Your task to perform on an android device: Open Amazon Image 0: 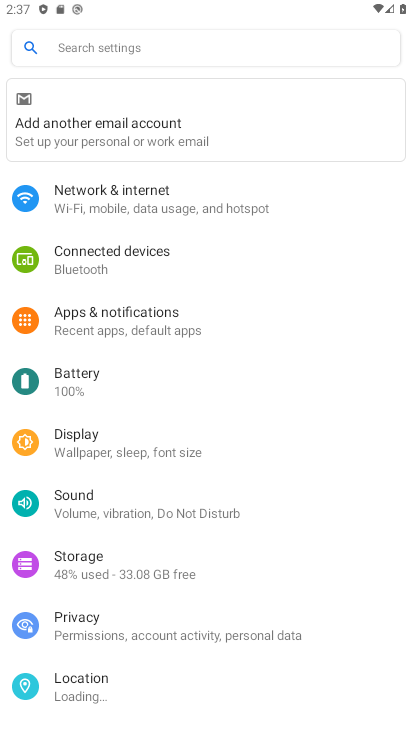
Step 0: press home button
Your task to perform on an android device: Open Amazon Image 1: 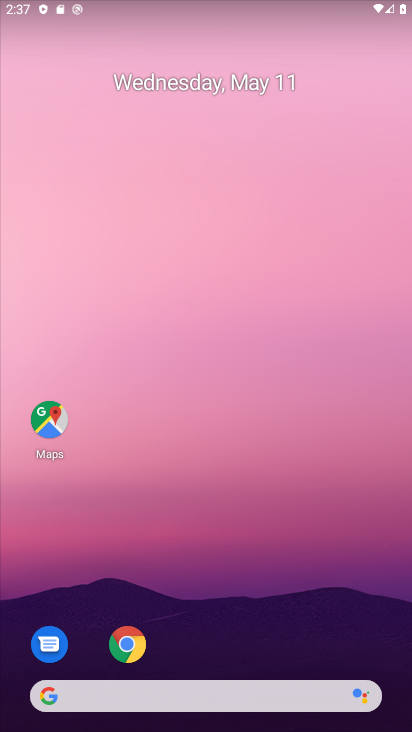
Step 1: drag from (185, 668) to (79, 1)
Your task to perform on an android device: Open Amazon Image 2: 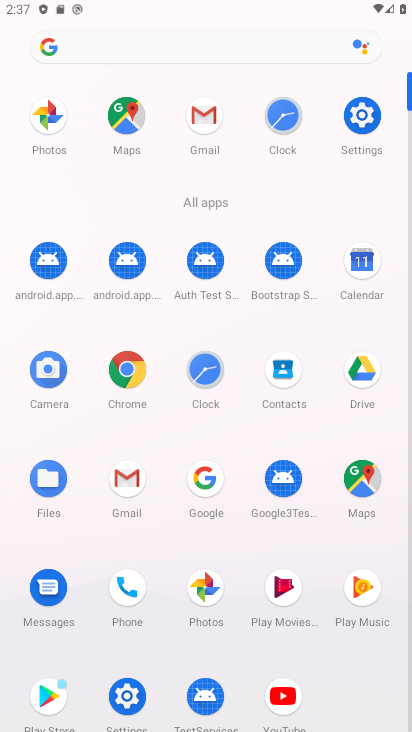
Step 2: click (132, 381)
Your task to perform on an android device: Open Amazon Image 3: 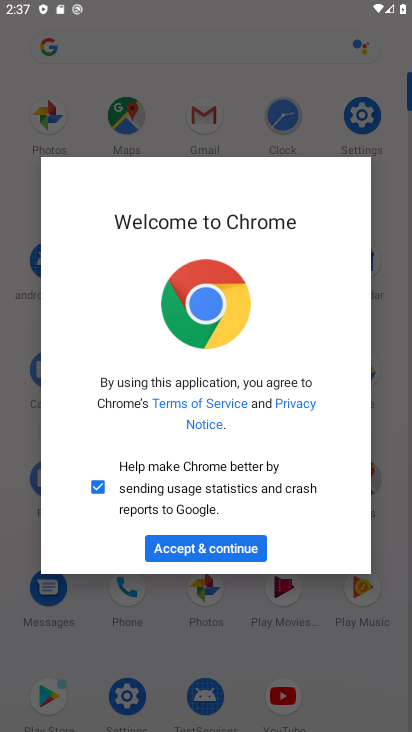
Step 3: click (240, 539)
Your task to perform on an android device: Open Amazon Image 4: 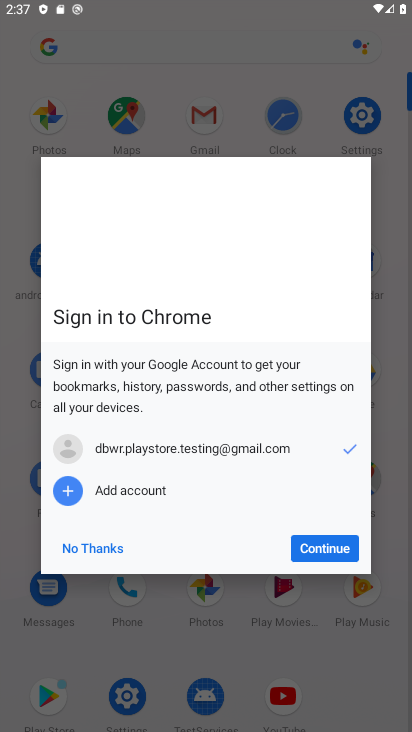
Step 4: click (322, 543)
Your task to perform on an android device: Open Amazon Image 5: 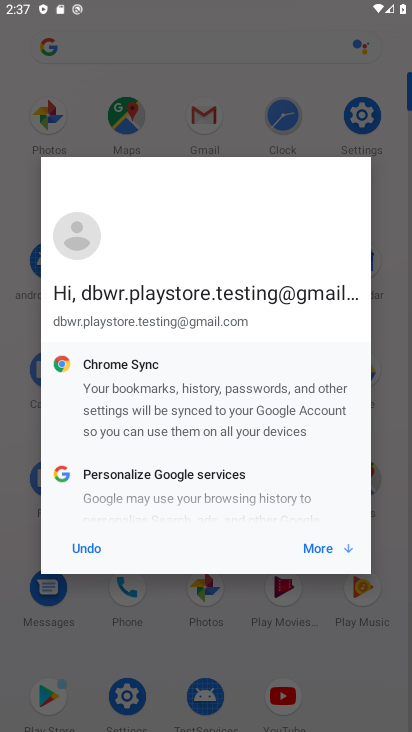
Step 5: click (336, 545)
Your task to perform on an android device: Open Amazon Image 6: 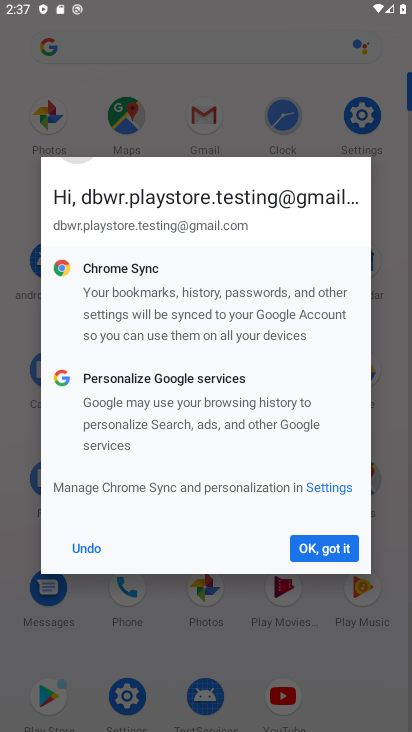
Step 6: click (336, 545)
Your task to perform on an android device: Open Amazon Image 7: 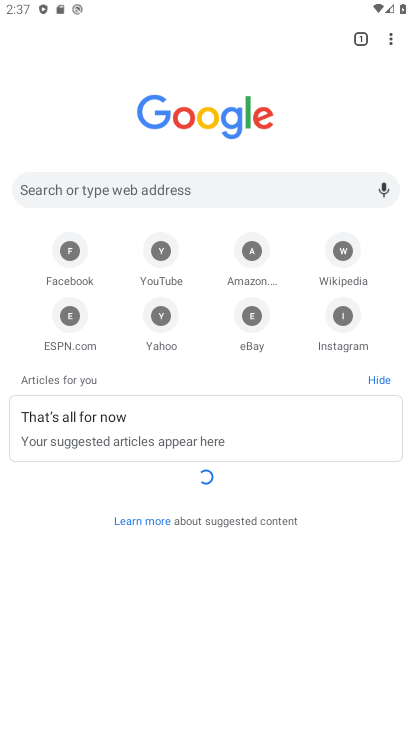
Step 7: click (261, 246)
Your task to perform on an android device: Open Amazon Image 8: 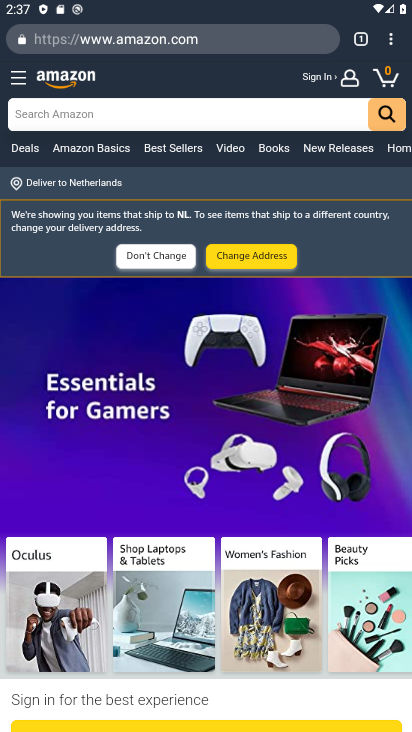
Step 8: task complete